Your task to perform on an android device: Clear the shopping cart on bestbuy. Search for "apple airpods pro" on bestbuy, select the first entry, and add it to the cart. Image 0: 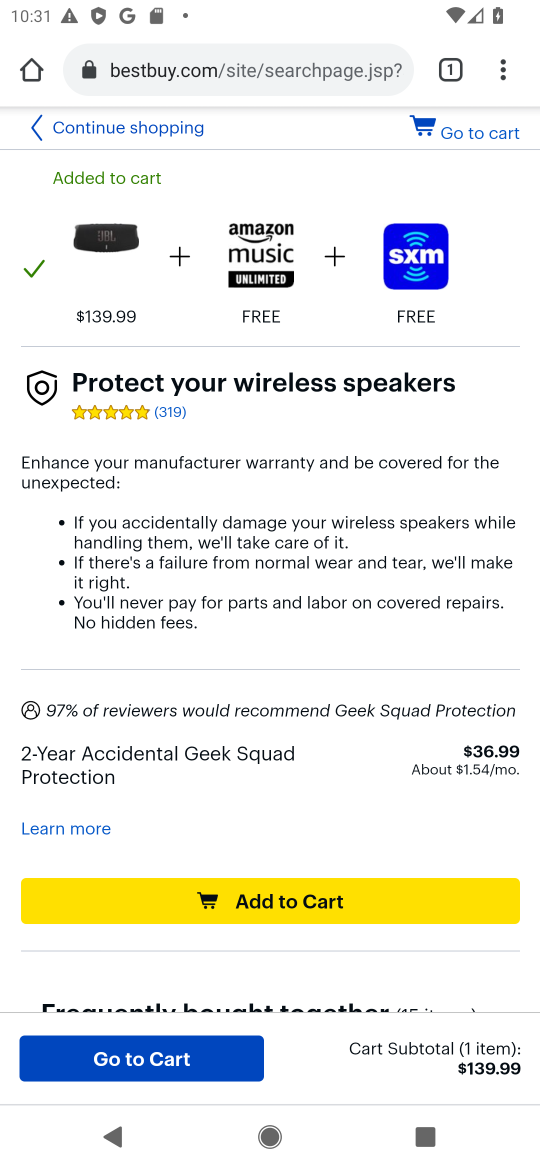
Step 0: drag from (299, 414) to (406, 867)
Your task to perform on an android device: Clear the shopping cart on bestbuy. Search for "apple airpods pro" on bestbuy, select the first entry, and add it to the cart. Image 1: 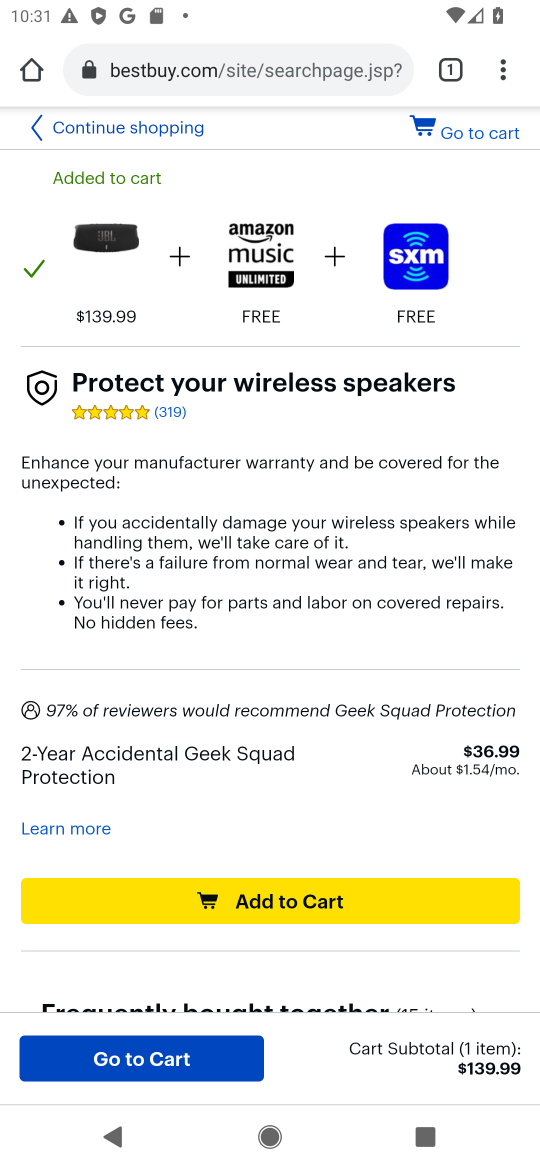
Step 1: task complete